Your task to perform on an android device: Open calendar and show me the second week of next month Image 0: 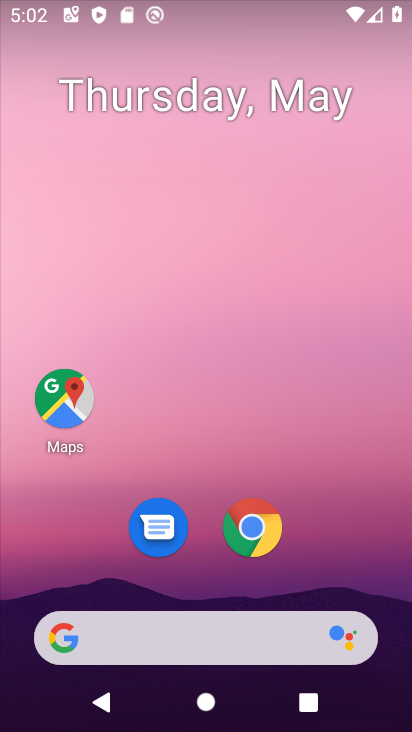
Step 0: drag from (364, 494) to (43, 138)
Your task to perform on an android device: Open calendar and show me the second week of next month Image 1: 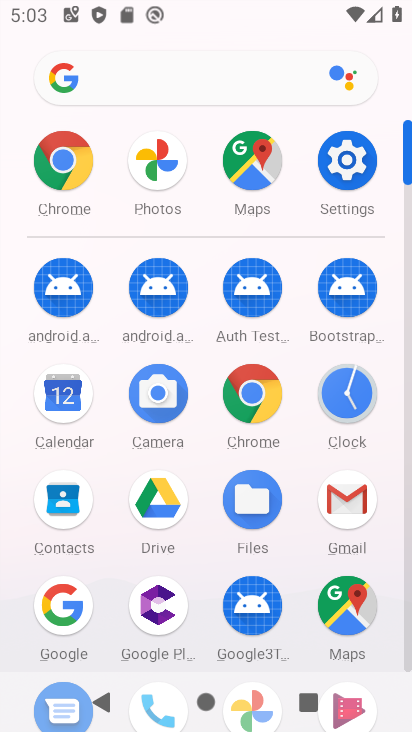
Step 1: click (44, 386)
Your task to perform on an android device: Open calendar and show me the second week of next month Image 2: 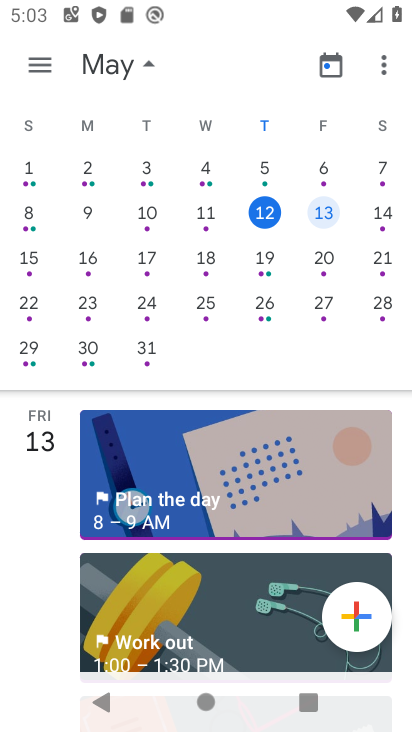
Step 2: drag from (392, 300) to (28, 383)
Your task to perform on an android device: Open calendar and show me the second week of next month Image 3: 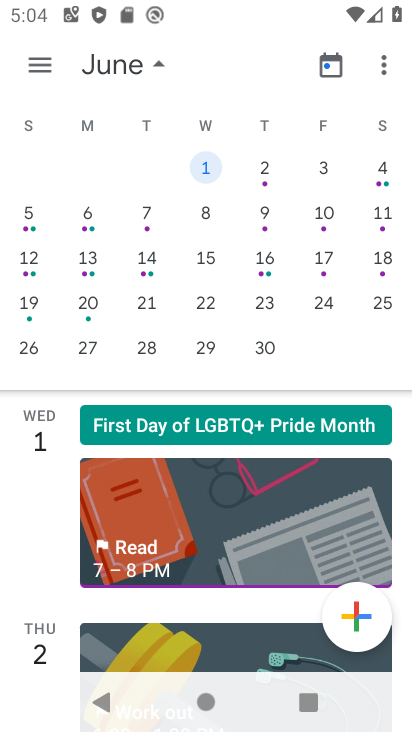
Step 3: click (148, 263)
Your task to perform on an android device: Open calendar and show me the second week of next month Image 4: 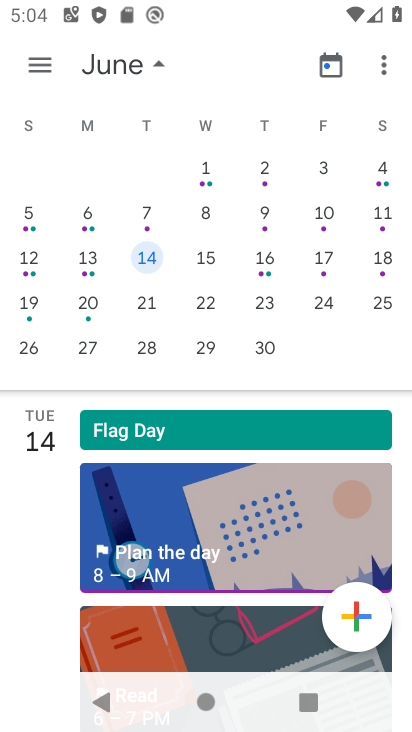
Step 4: task complete